Your task to perform on an android device: turn off javascript in the chrome app Image 0: 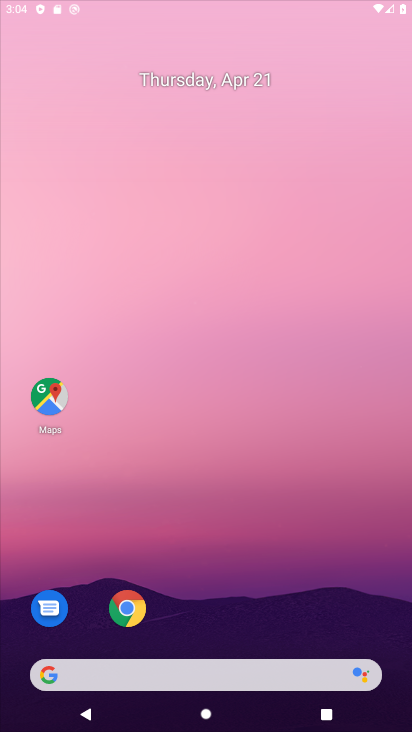
Step 0: drag from (301, 599) to (258, 216)
Your task to perform on an android device: turn off javascript in the chrome app Image 1: 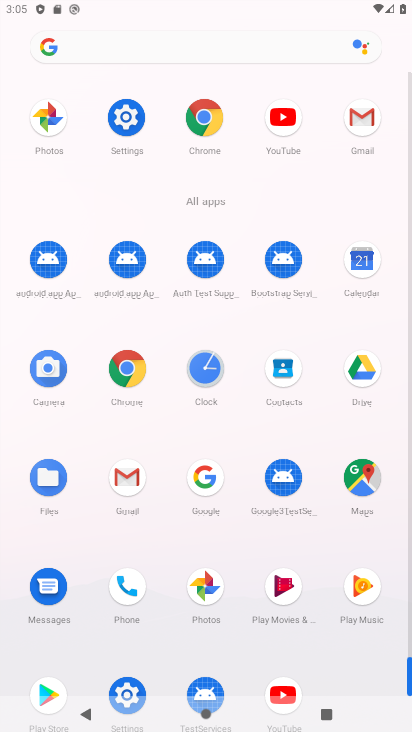
Step 1: click (202, 138)
Your task to perform on an android device: turn off javascript in the chrome app Image 2: 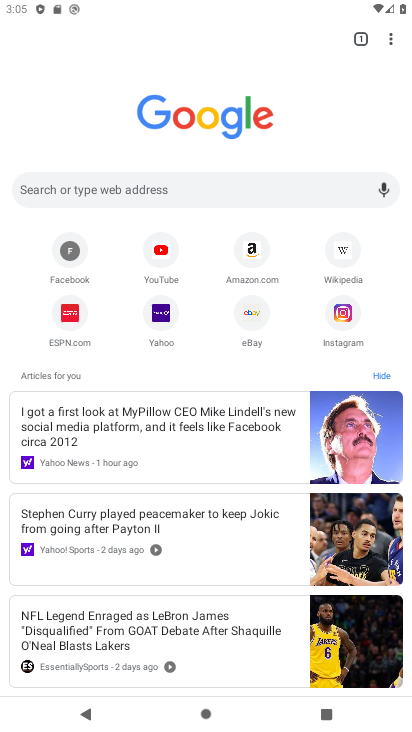
Step 2: click (390, 39)
Your task to perform on an android device: turn off javascript in the chrome app Image 3: 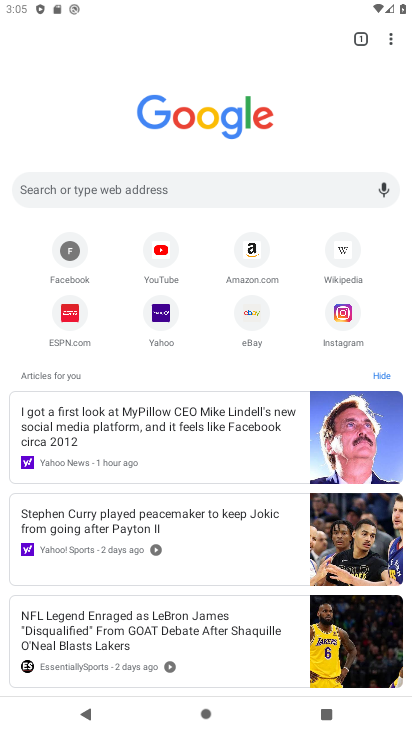
Step 3: click (394, 39)
Your task to perform on an android device: turn off javascript in the chrome app Image 4: 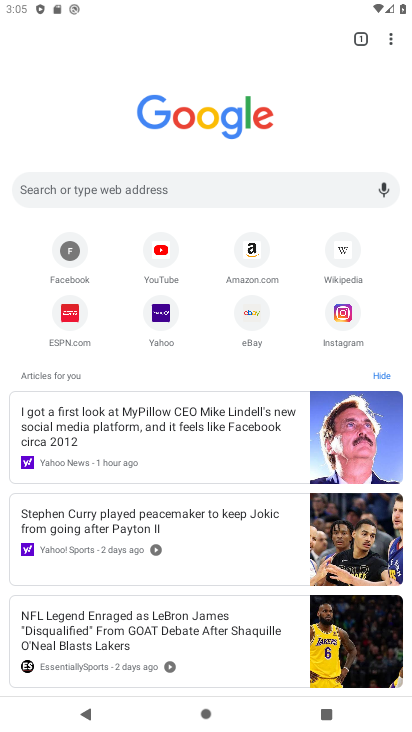
Step 4: click (391, 40)
Your task to perform on an android device: turn off javascript in the chrome app Image 5: 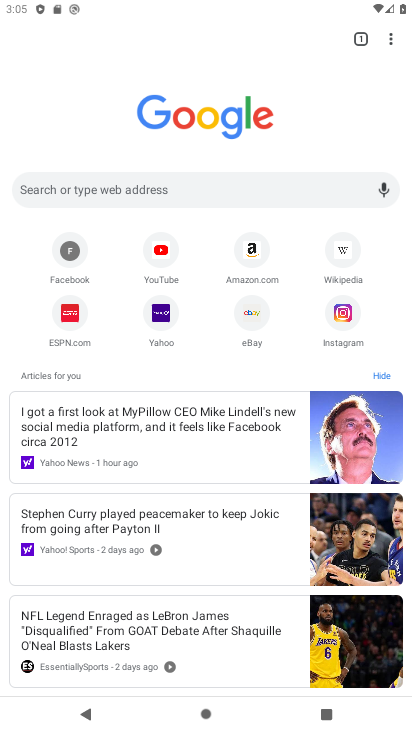
Step 5: click (390, 37)
Your task to perform on an android device: turn off javascript in the chrome app Image 6: 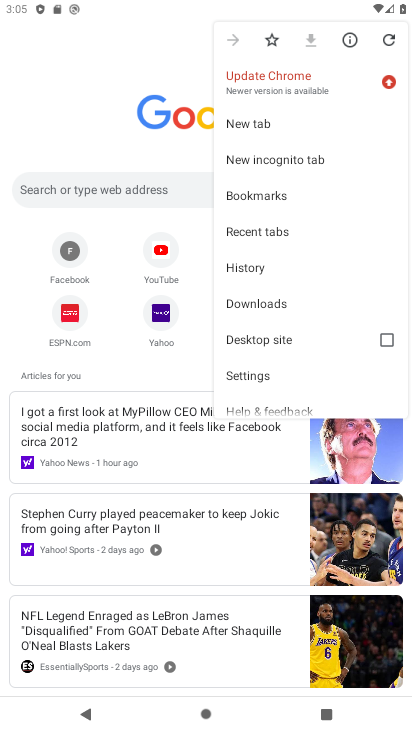
Step 6: click (248, 375)
Your task to perform on an android device: turn off javascript in the chrome app Image 7: 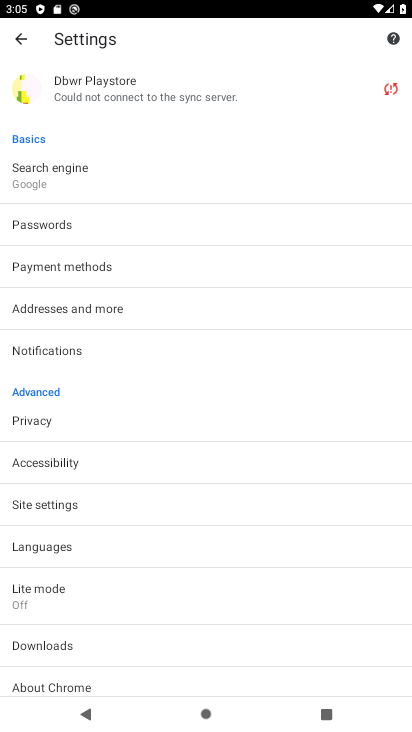
Step 7: click (55, 509)
Your task to perform on an android device: turn off javascript in the chrome app Image 8: 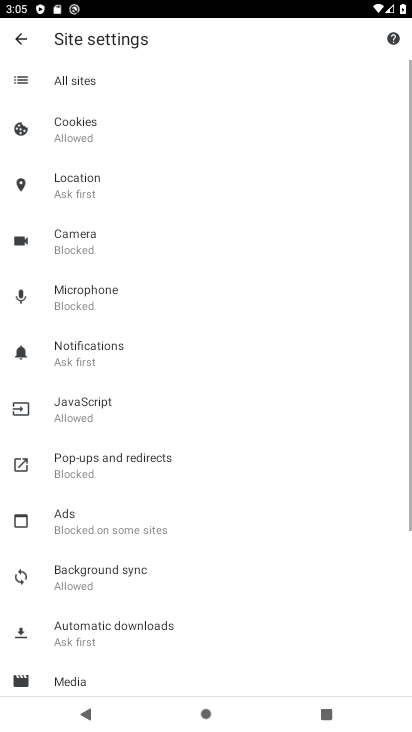
Step 8: click (81, 422)
Your task to perform on an android device: turn off javascript in the chrome app Image 9: 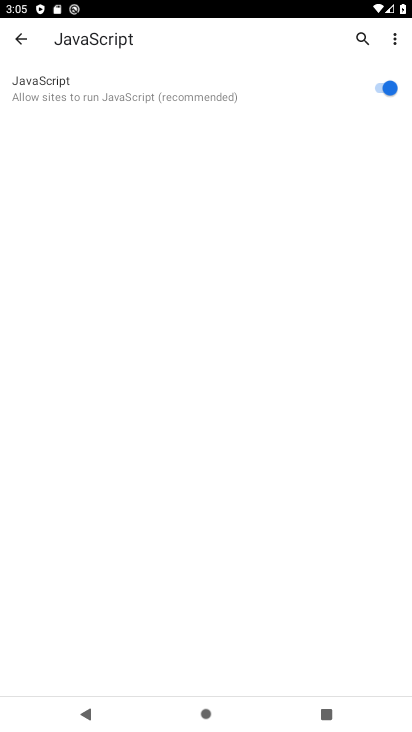
Step 9: click (374, 85)
Your task to perform on an android device: turn off javascript in the chrome app Image 10: 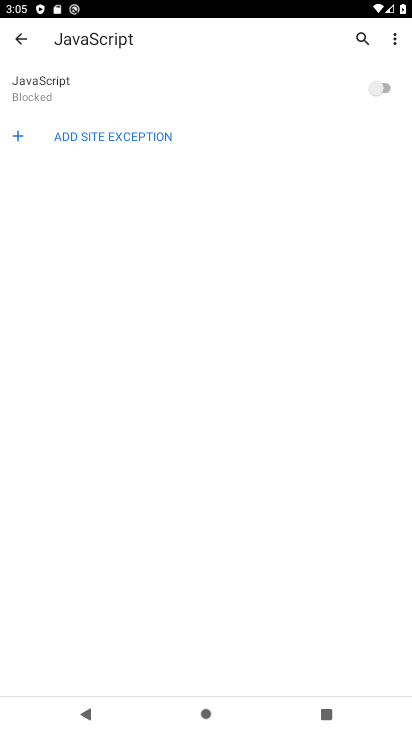
Step 10: task complete